Your task to perform on an android device: change the clock display to analog Image 0: 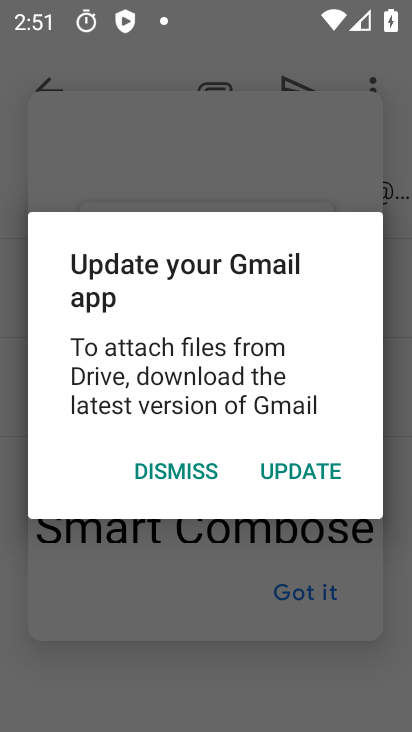
Step 0: press home button
Your task to perform on an android device: change the clock display to analog Image 1: 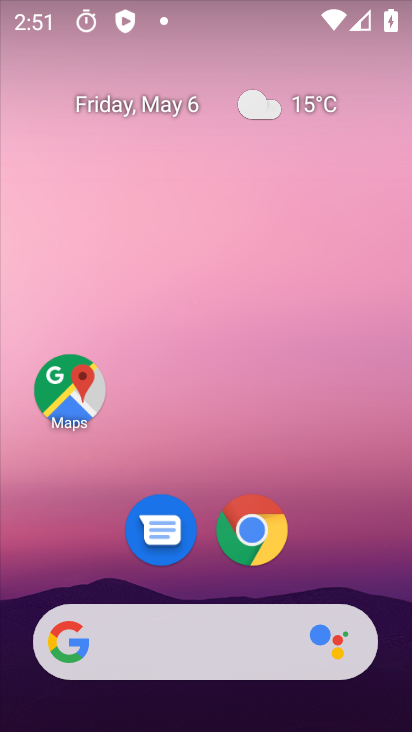
Step 1: drag from (355, 555) to (395, 105)
Your task to perform on an android device: change the clock display to analog Image 2: 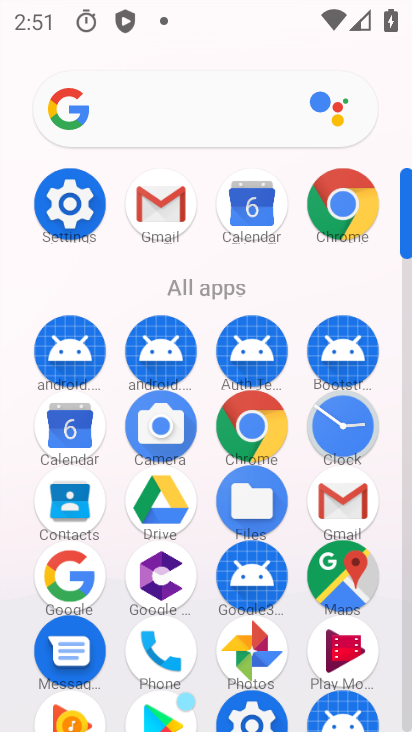
Step 2: drag from (405, 573) to (410, 249)
Your task to perform on an android device: change the clock display to analog Image 3: 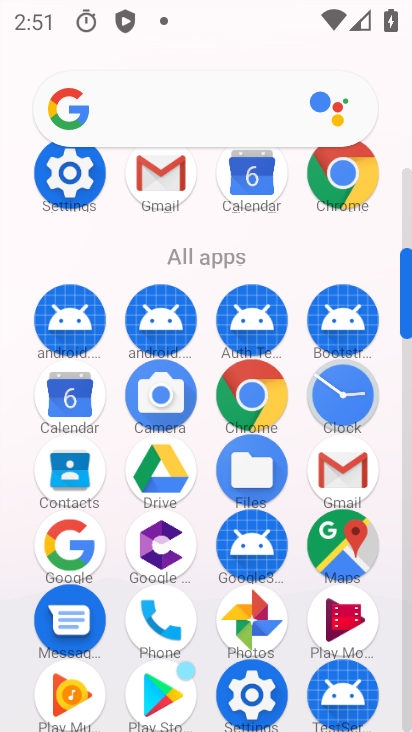
Step 3: click (340, 311)
Your task to perform on an android device: change the clock display to analog Image 4: 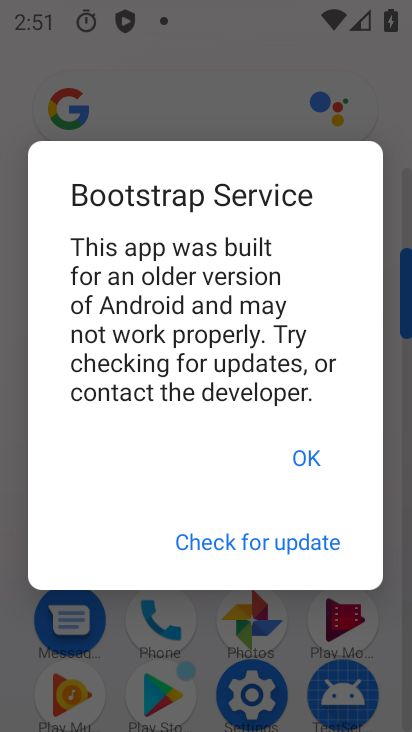
Step 4: click (318, 399)
Your task to perform on an android device: change the clock display to analog Image 5: 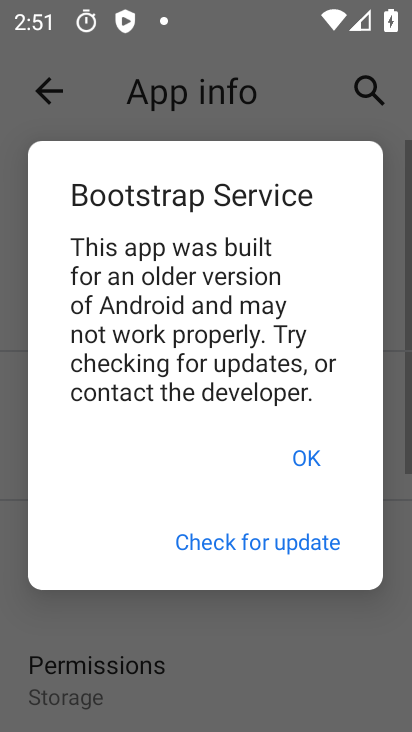
Step 5: press home button
Your task to perform on an android device: change the clock display to analog Image 6: 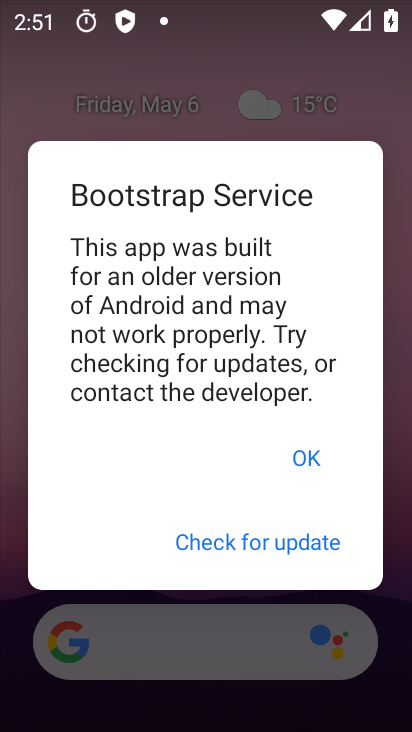
Step 6: press back button
Your task to perform on an android device: change the clock display to analog Image 7: 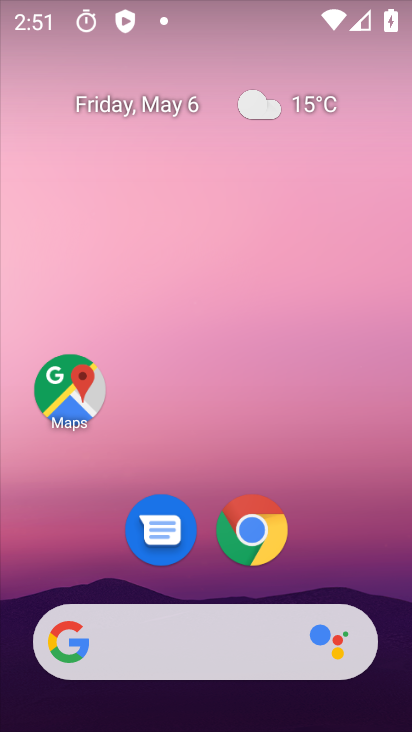
Step 7: drag from (343, 536) to (363, 115)
Your task to perform on an android device: change the clock display to analog Image 8: 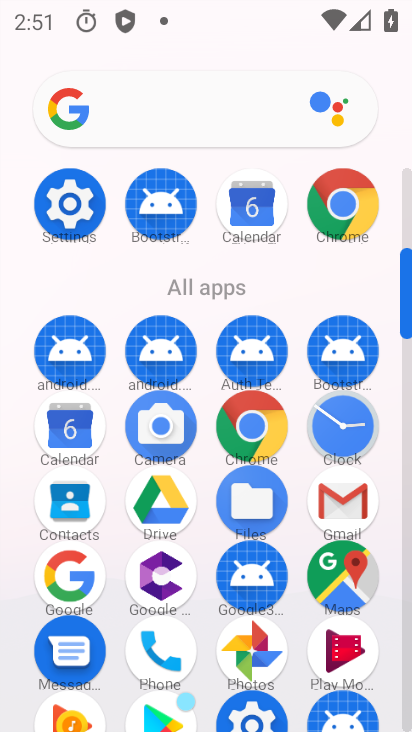
Step 8: click (322, 435)
Your task to perform on an android device: change the clock display to analog Image 9: 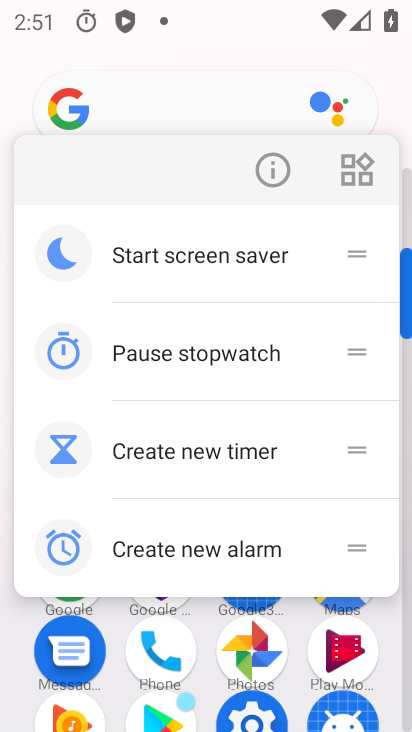
Step 9: press back button
Your task to perform on an android device: change the clock display to analog Image 10: 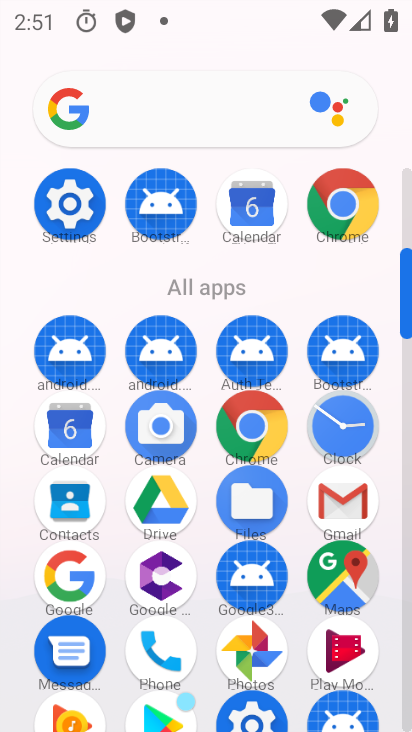
Step 10: click (338, 428)
Your task to perform on an android device: change the clock display to analog Image 11: 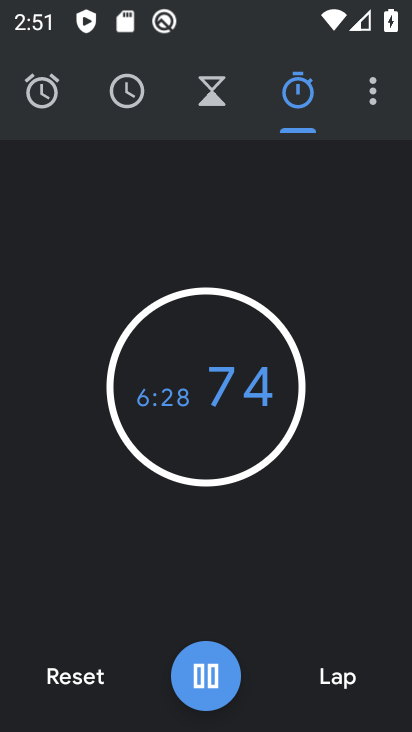
Step 11: click (383, 70)
Your task to perform on an android device: change the clock display to analog Image 12: 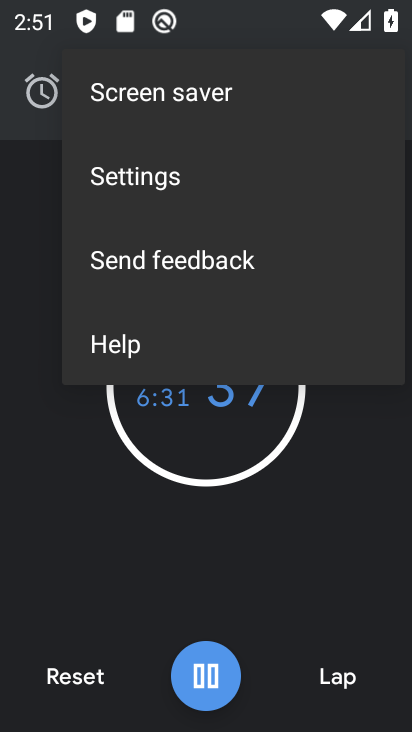
Step 12: click (141, 196)
Your task to perform on an android device: change the clock display to analog Image 13: 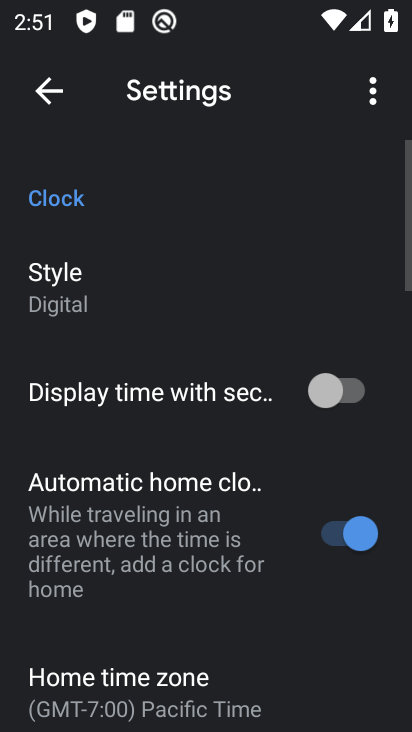
Step 13: click (66, 289)
Your task to perform on an android device: change the clock display to analog Image 14: 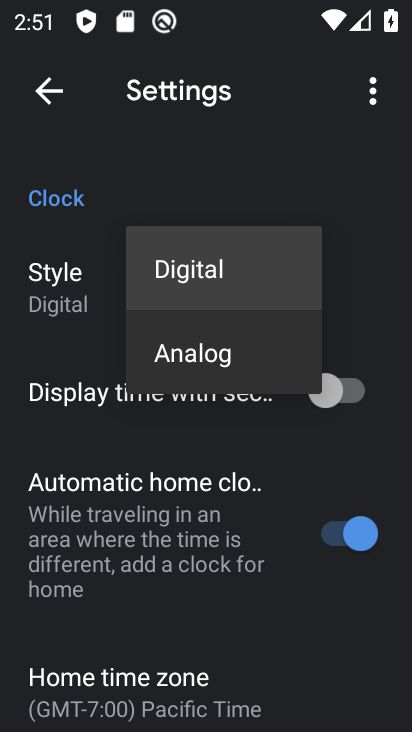
Step 14: click (168, 355)
Your task to perform on an android device: change the clock display to analog Image 15: 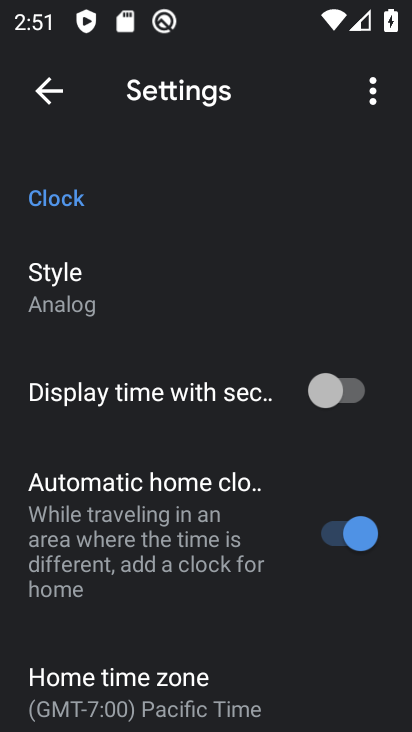
Step 15: task complete